Your task to perform on an android device: turn off smart reply in the gmail app Image 0: 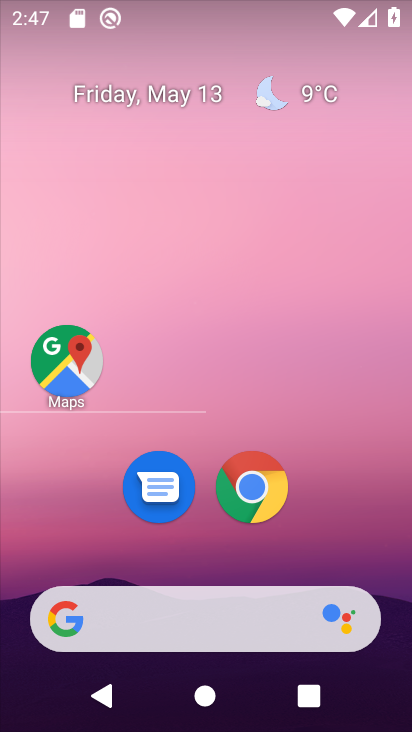
Step 0: drag from (188, 596) to (154, 121)
Your task to perform on an android device: turn off smart reply in the gmail app Image 1: 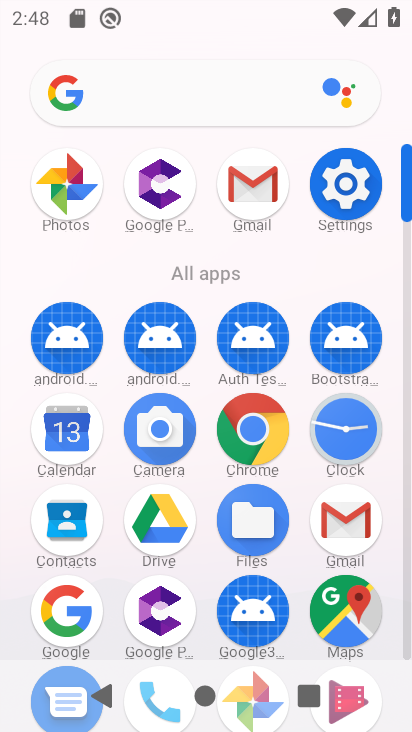
Step 1: click (258, 202)
Your task to perform on an android device: turn off smart reply in the gmail app Image 2: 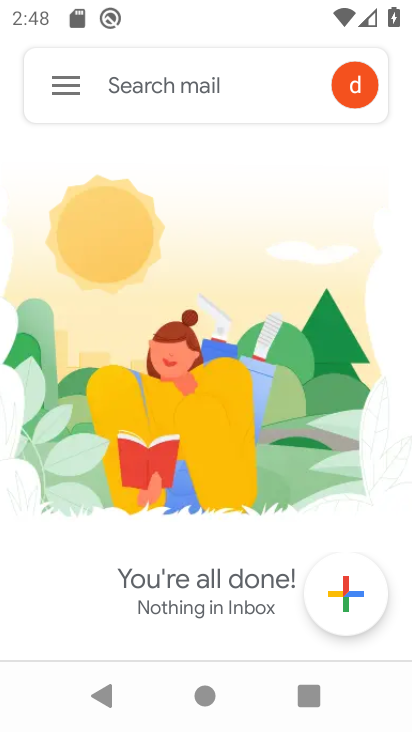
Step 2: click (55, 80)
Your task to perform on an android device: turn off smart reply in the gmail app Image 3: 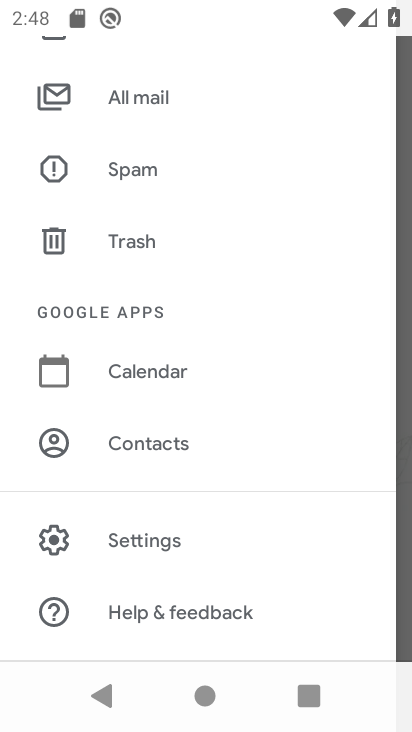
Step 3: click (139, 562)
Your task to perform on an android device: turn off smart reply in the gmail app Image 4: 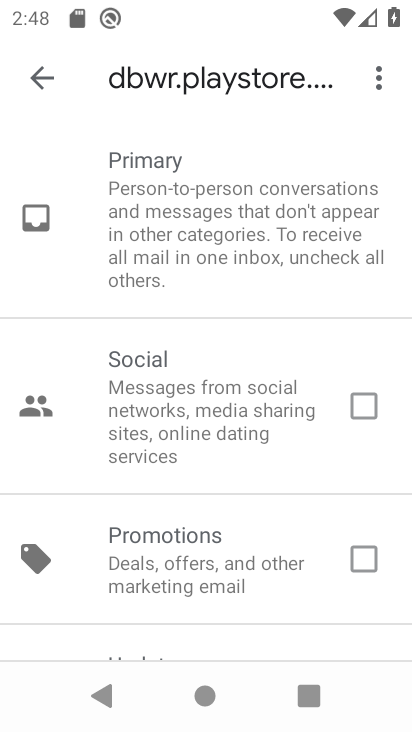
Step 4: click (37, 71)
Your task to perform on an android device: turn off smart reply in the gmail app Image 5: 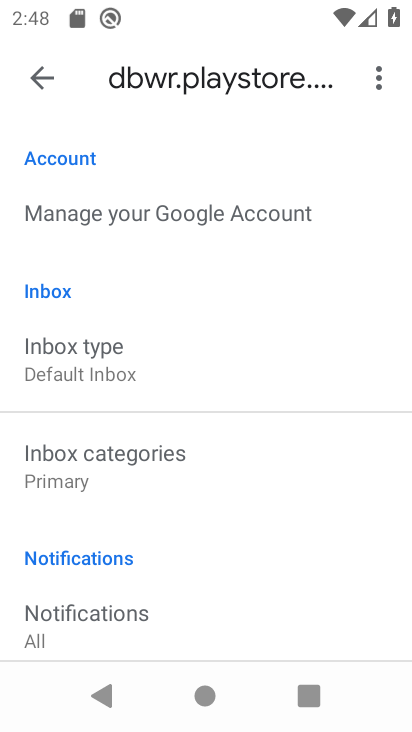
Step 5: drag from (109, 528) to (47, 39)
Your task to perform on an android device: turn off smart reply in the gmail app Image 6: 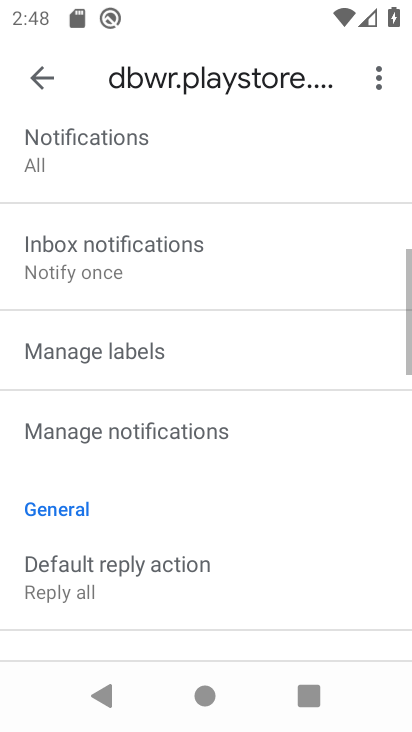
Step 6: drag from (155, 470) to (136, 32)
Your task to perform on an android device: turn off smart reply in the gmail app Image 7: 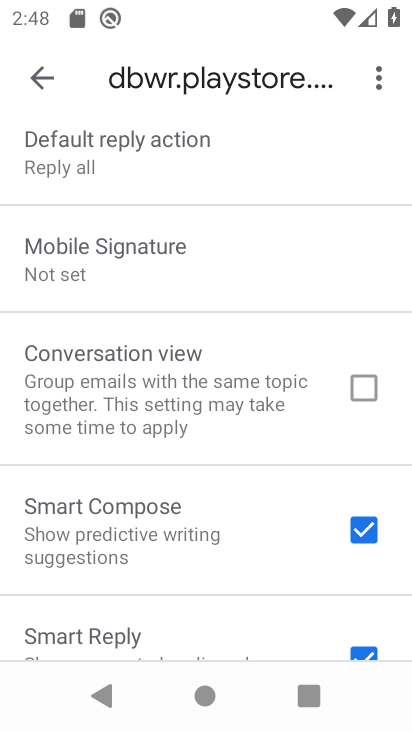
Step 7: drag from (171, 488) to (174, 203)
Your task to perform on an android device: turn off smart reply in the gmail app Image 8: 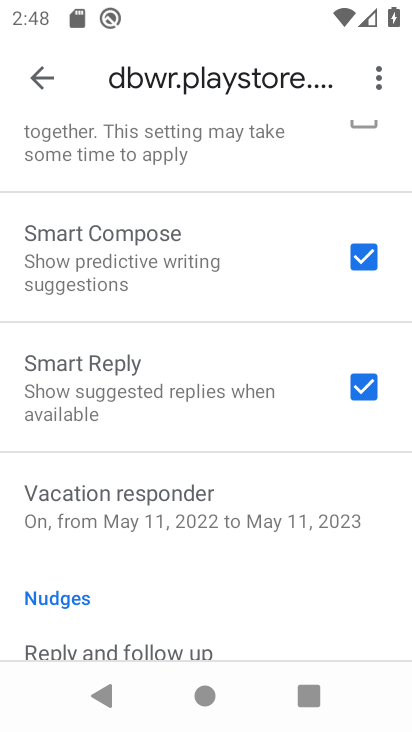
Step 8: click (364, 386)
Your task to perform on an android device: turn off smart reply in the gmail app Image 9: 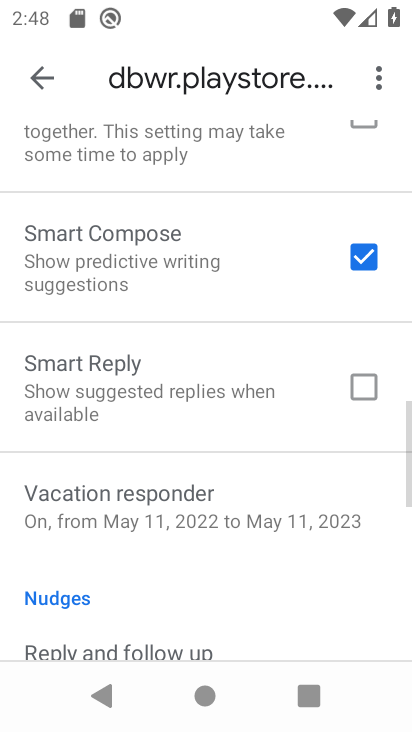
Step 9: task complete